Your task to perform on an android device: Show me popular videos on Youtube Image 0: 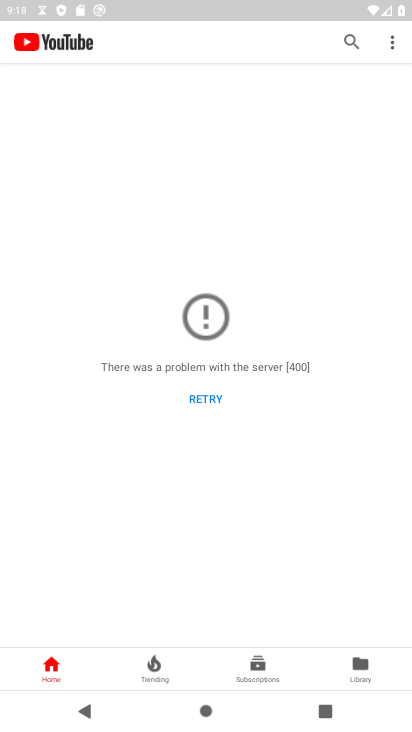
Step 0: click (203, 400)
Your task to perform on an android device: Show me popular videos on Youtube Image 1: 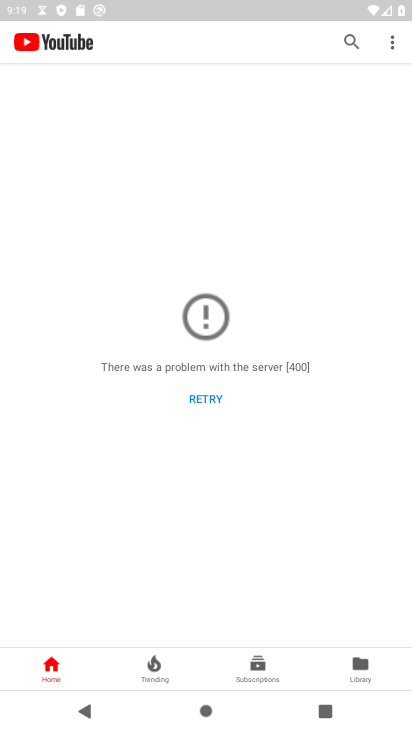
Step 1: click (209, 405)
Your task to perform on an android device: Show me popular videos on Youtube Image 2: 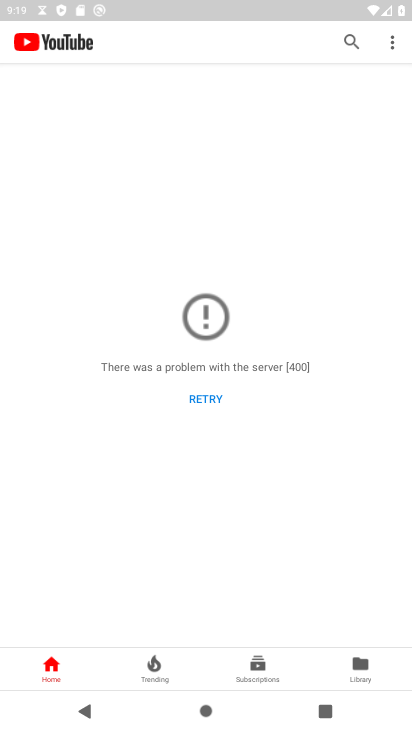
Step 2: task complete